Your task to perform on an android device: clear history in the chrome app Image 0: 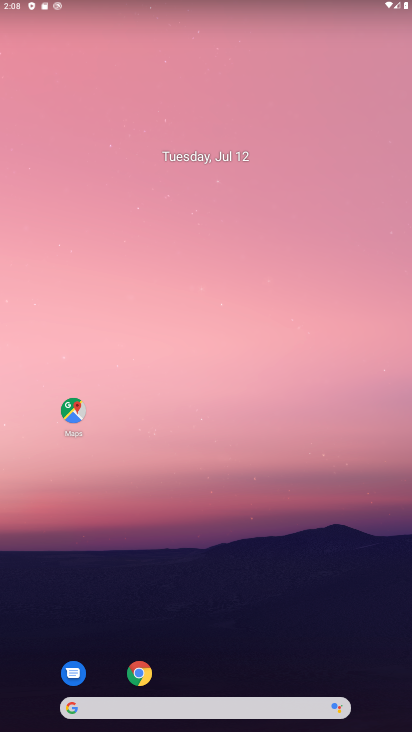
Step 0: click (131, 675)
Your task to perform on an android device: clear history in the chrome app Image 1: 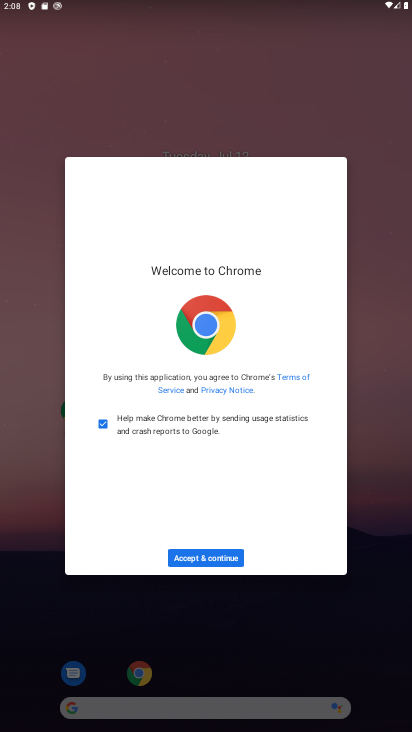
Step 1: click (217, 560)
Your task to perform on an android device: clear history in the chrome app Image 2: 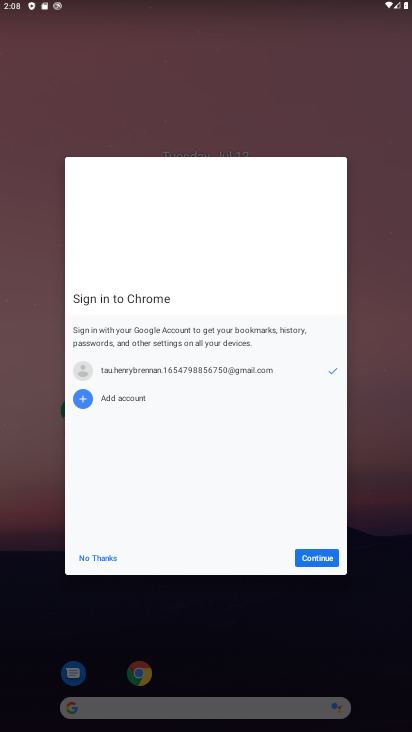
Step 2: click (319, 564)
Your task to perform on an android device: clear history in the chrome app Image 3: 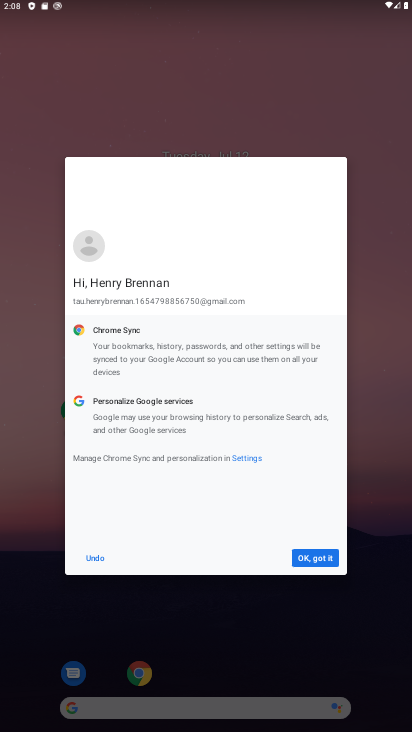
Step 3: click (319, 564)
Your task to perform on an android device: clear history in the chrome app Image 4: 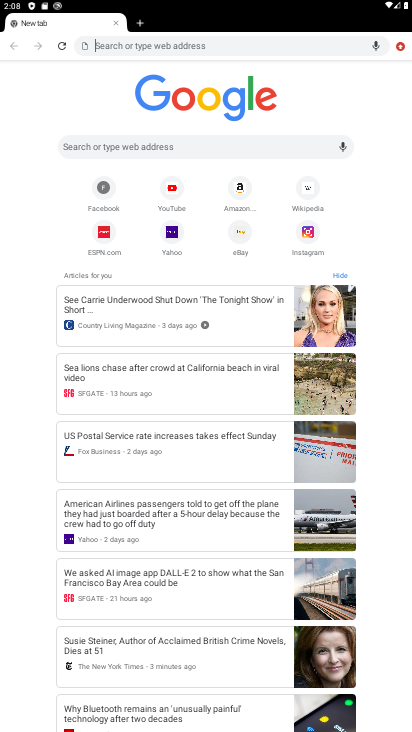
Step 4: click (401, 48)
Your task to perform on an android device: clear history in the chrome app Image 5: 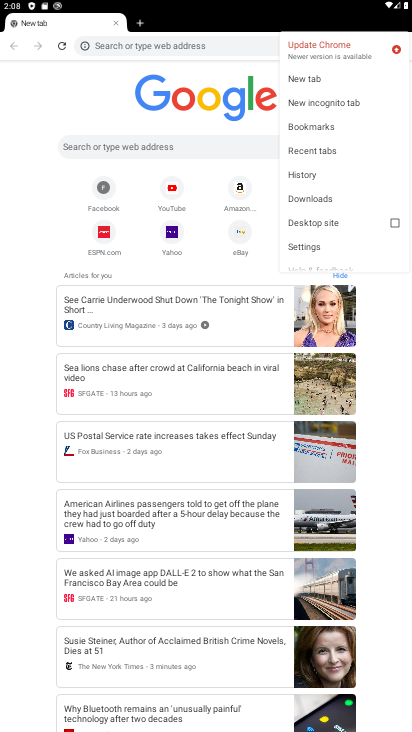
Step 5: click (329, 173)
Your task to perform on an android device: clear history in the chrome app Image 6: 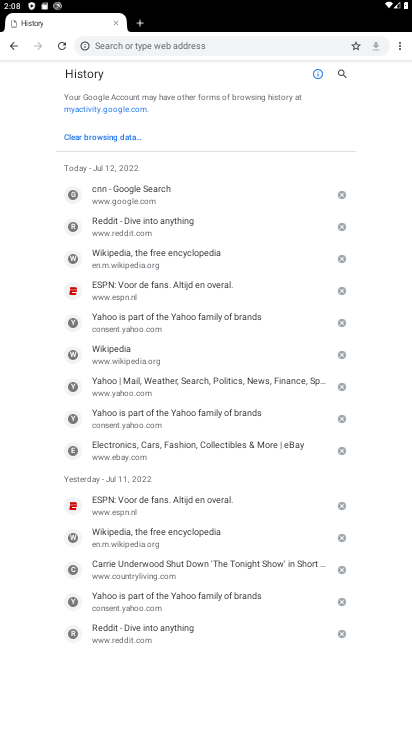
Step 6: click (95, 132)
Your task to perform on an android device: clear history in the chrome app Image 7: 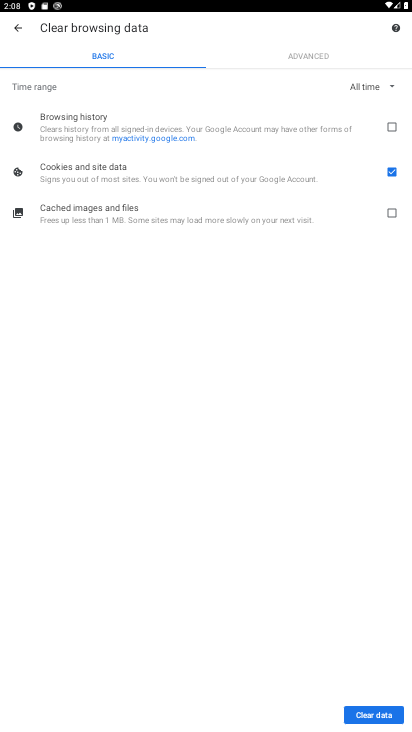
Step 7: click (395, 170)
Your task to perform on an android device: clear history in the chrome app Image 8: 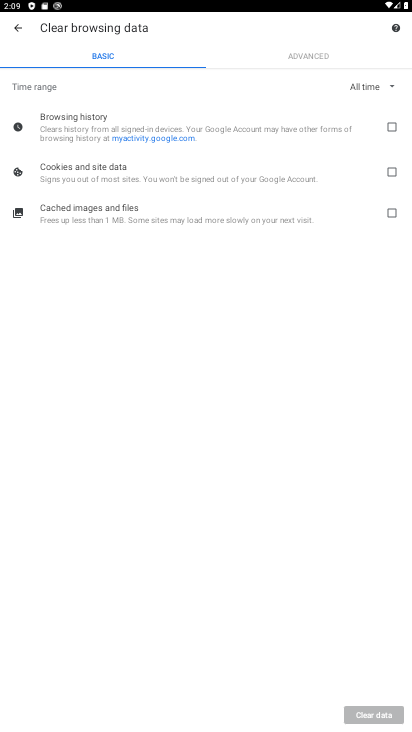
Step 8: click (395, 132)
Your task to perform on an android device: clear history in the chrome app Image 9: 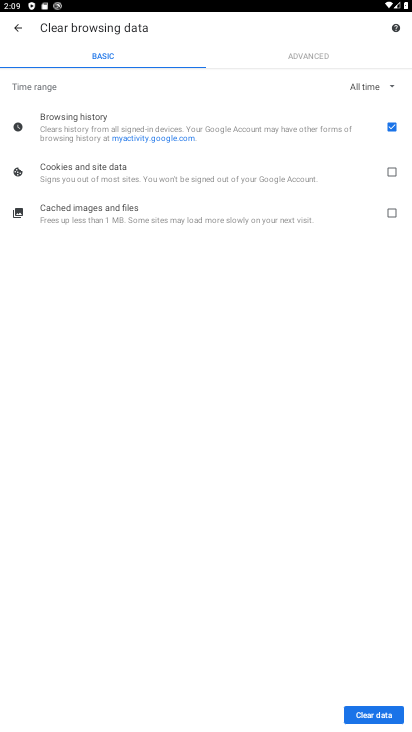
Step 9: click (383, 717)
Your task to perform on an android device: clear history in the chrome app Image 10: 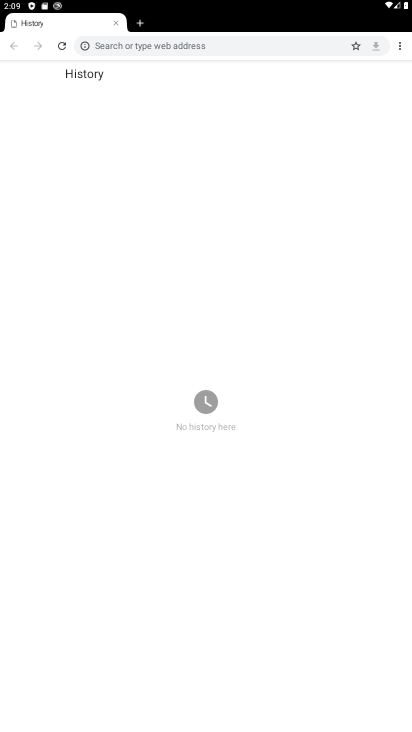
Step 10: task complete